Your task to perform on an android device: Show me recent news Image 0: 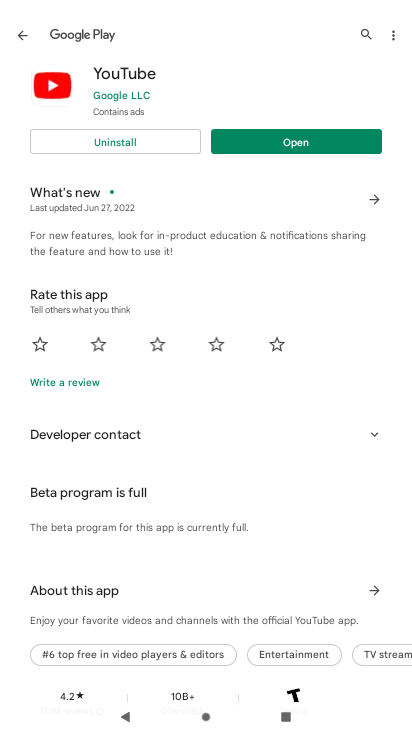
Step 0: press home button
Your task to perform on an android device: Show me recent news Image 1: 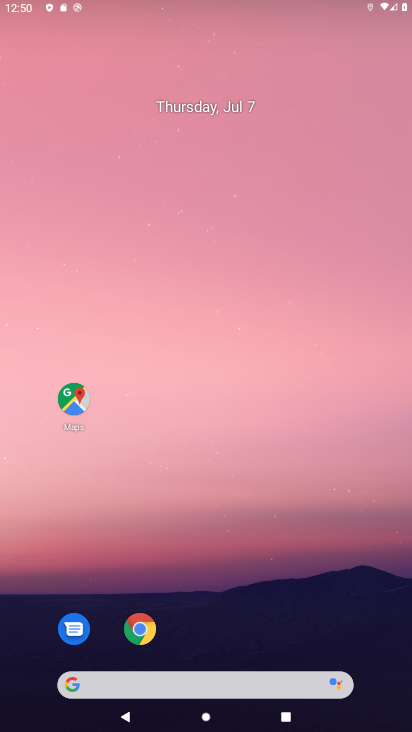
Step 1: drag from (202, 630) to (232, 155)
Your task to perform on an android device: Show me recent news Image 2: 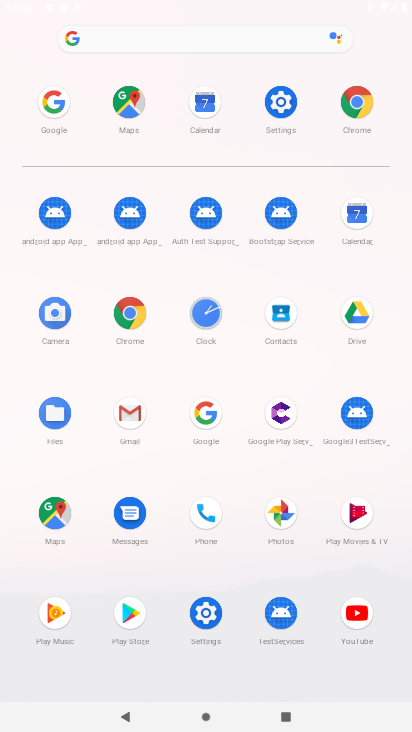
Step 2: click (125, 309)
Your task to perform on an android device: Show me recent news Image 3: 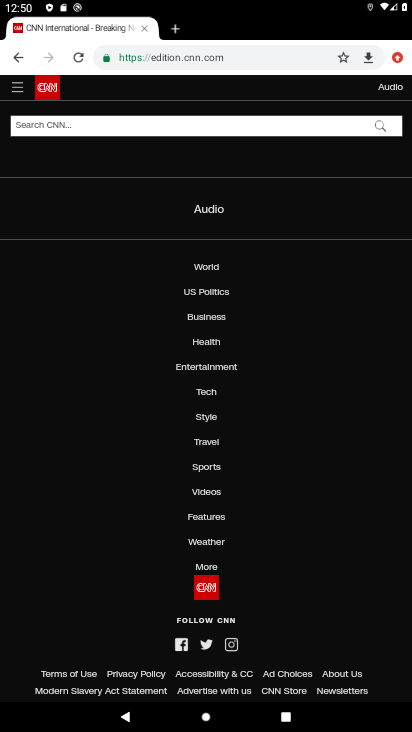
Step 3: click (206, 51)
Your task to perform on an android device: Show me recent news Image 4: 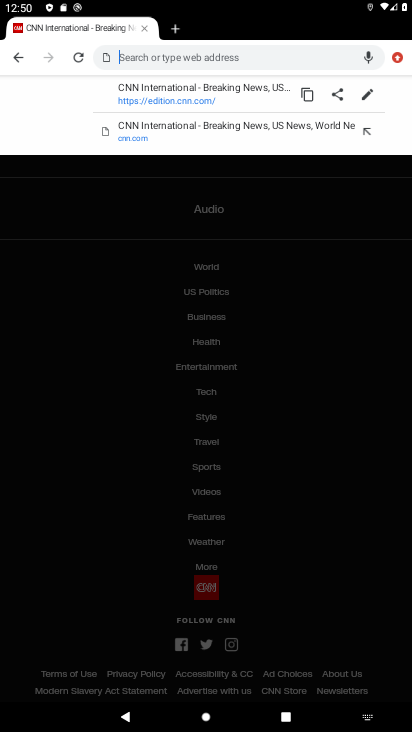
Step 4: type "show me recent news"
Your task to perform on an android device: Show me recent news Image 5: 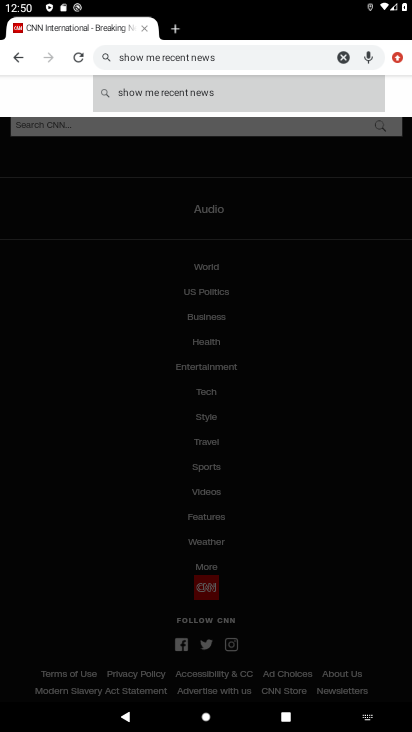
Step 5: click (182, 93)
Your task to perform on an android device: Show me recent news Image 6: 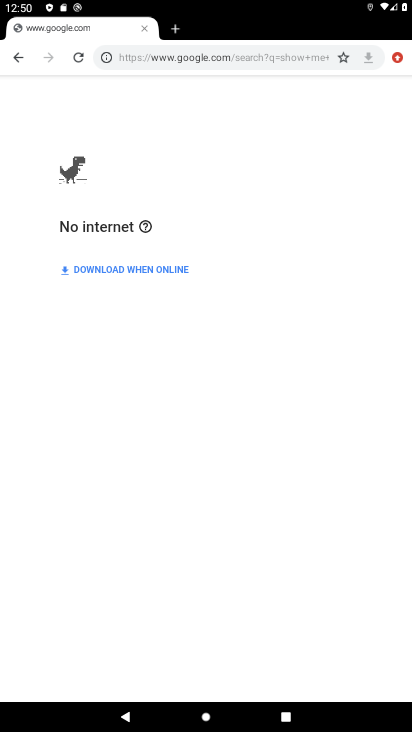
Step 6: task complete